Your task to perform on an android device: Go to settings Image 0: 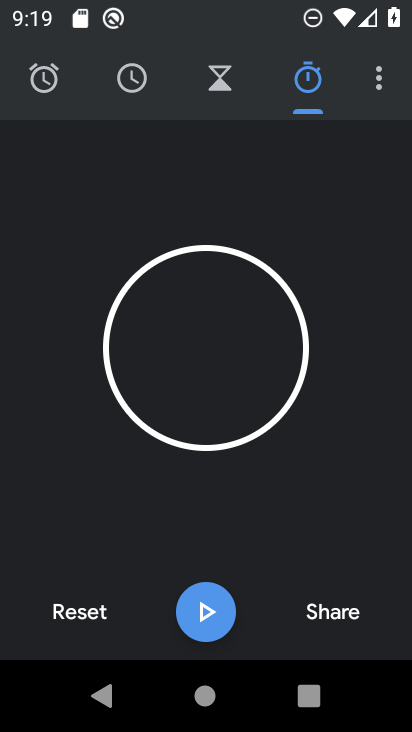
Step 0: press home button
Your task to perform on an android device: Go to settings Image 1: 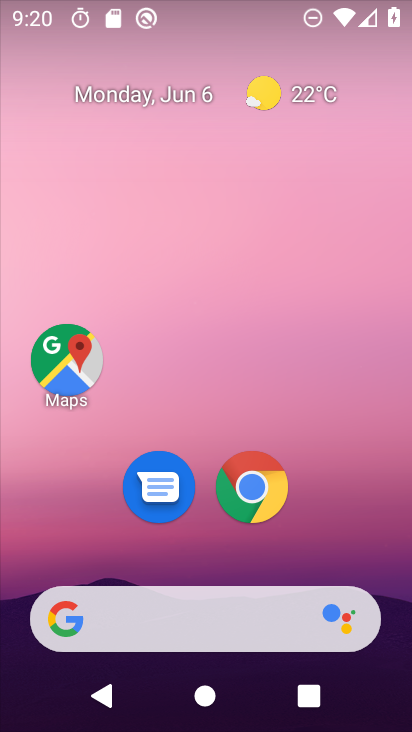
Step 1: drag from (386, 647) to (300, 47)
Your task to perform on an android device: Go to settings Image 2: 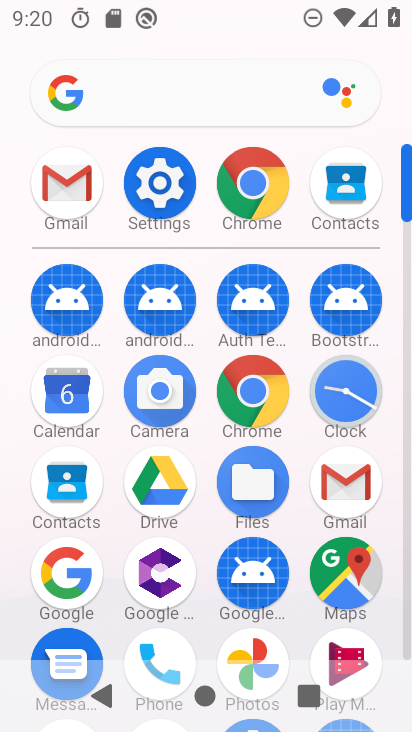
Step 2: click (138, 182)
Your task to perform on an android device: Go to settings Image 3: 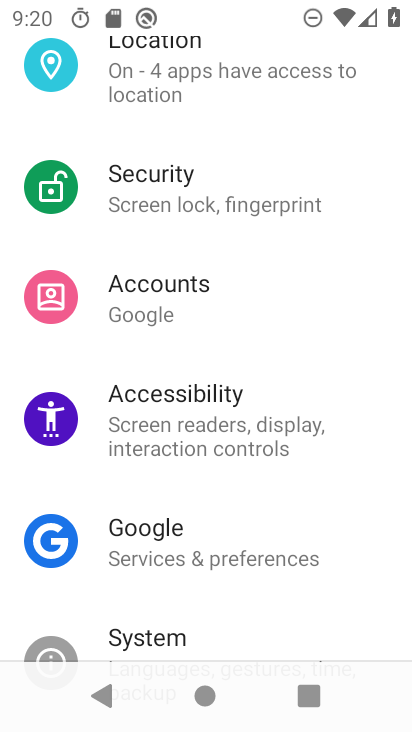
Step 3: task complete